Your task to perform on an android device: Open the clock Image 0: 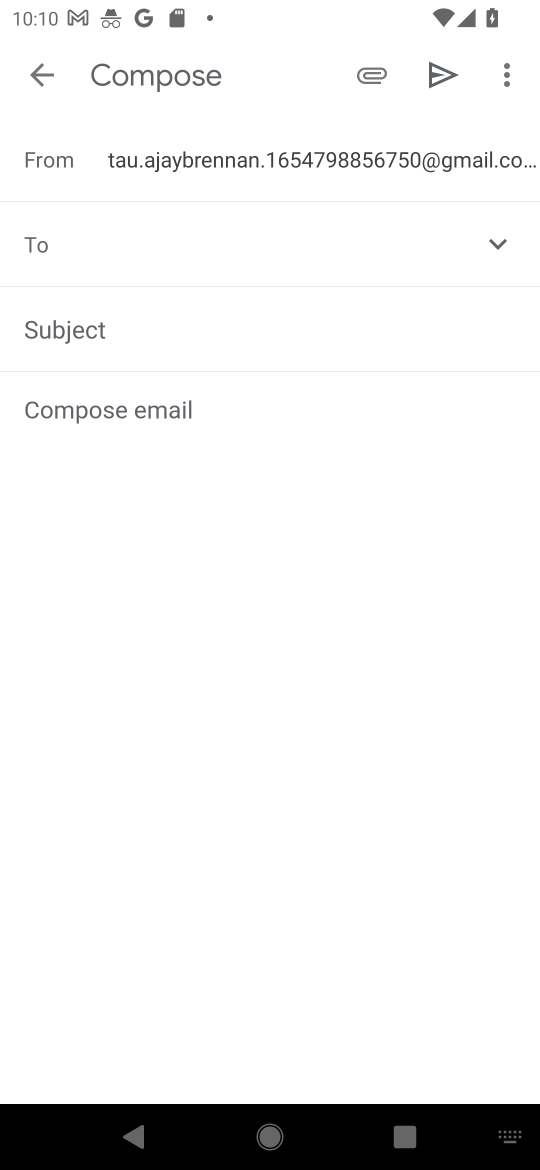
Step 0: press home button
Your task to perform on an android device: Open the clock Image 1: 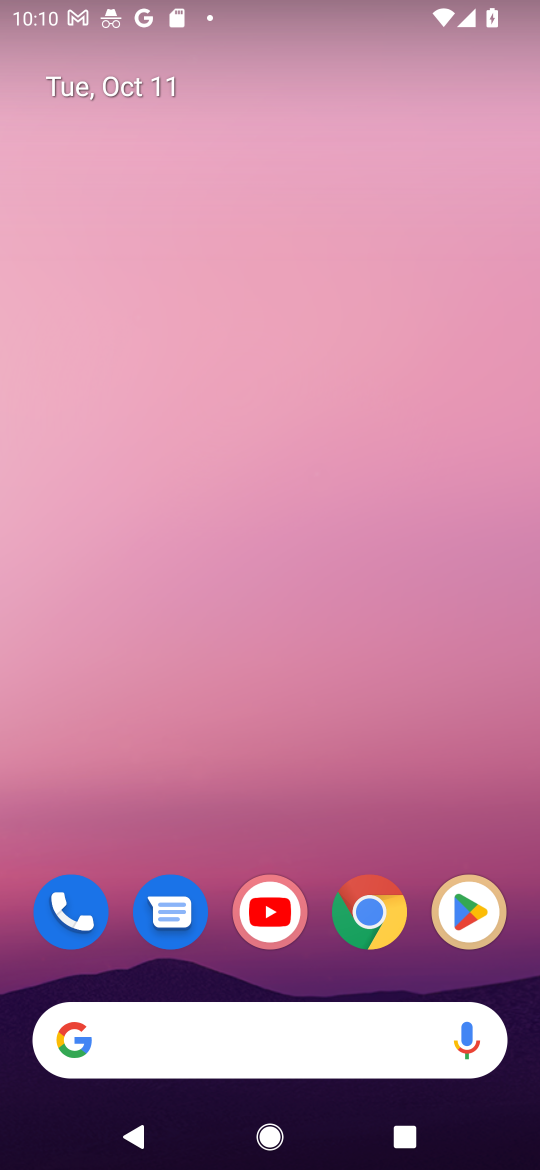
Step 1: drag from (410, 968) to (357, 72)
Your task to perform on an android device: Open the clock Image 2: 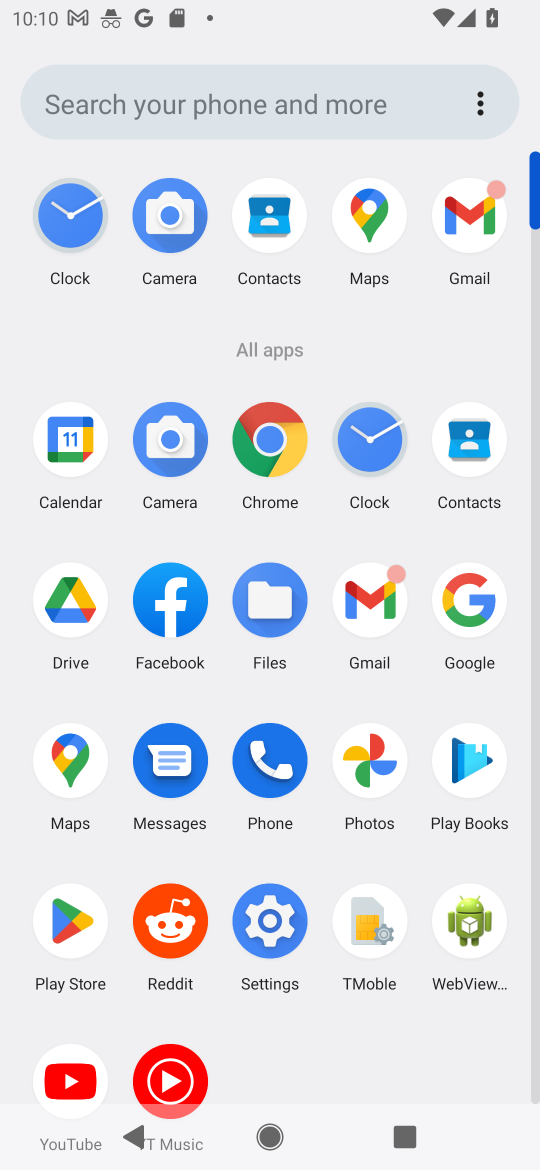
Step 2: click (368, 445)
Your task to perform on an android device: Open the clock Image 3: 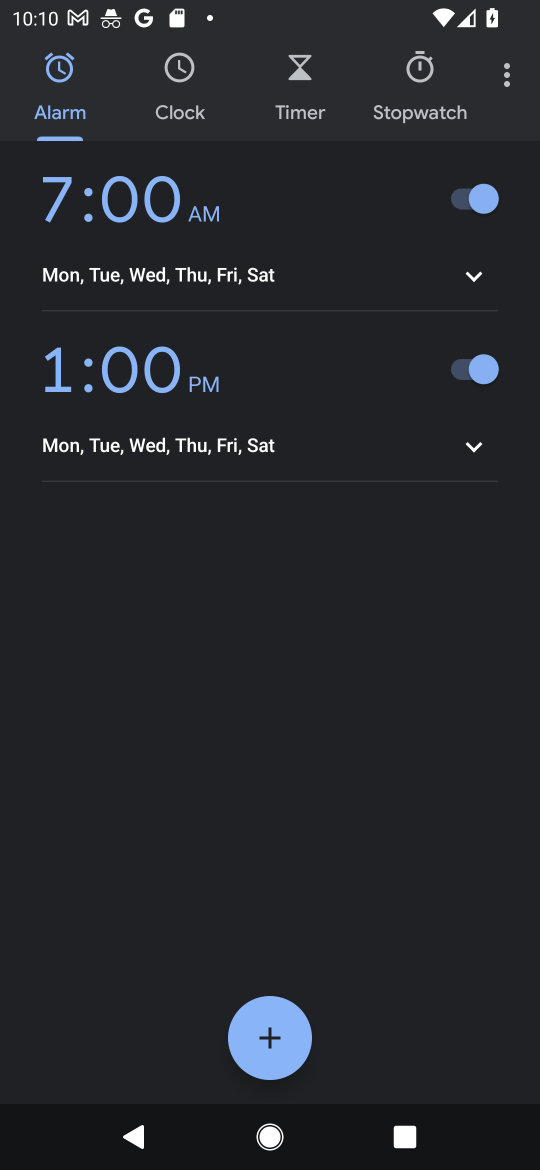
Step 3: click (183, 79)
Your task to perform on an android device: Open the clock Image 4: 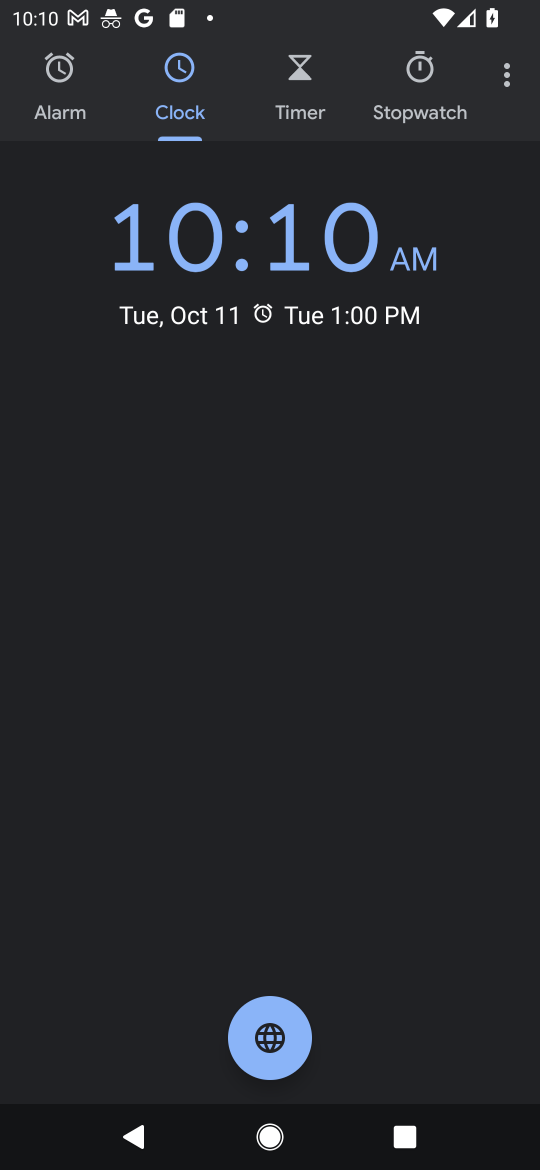
Step 4: task complete